Your task to perform on an android device: Search for usb-b on amazon, select the first entry, and add it to the cart. Image 0: 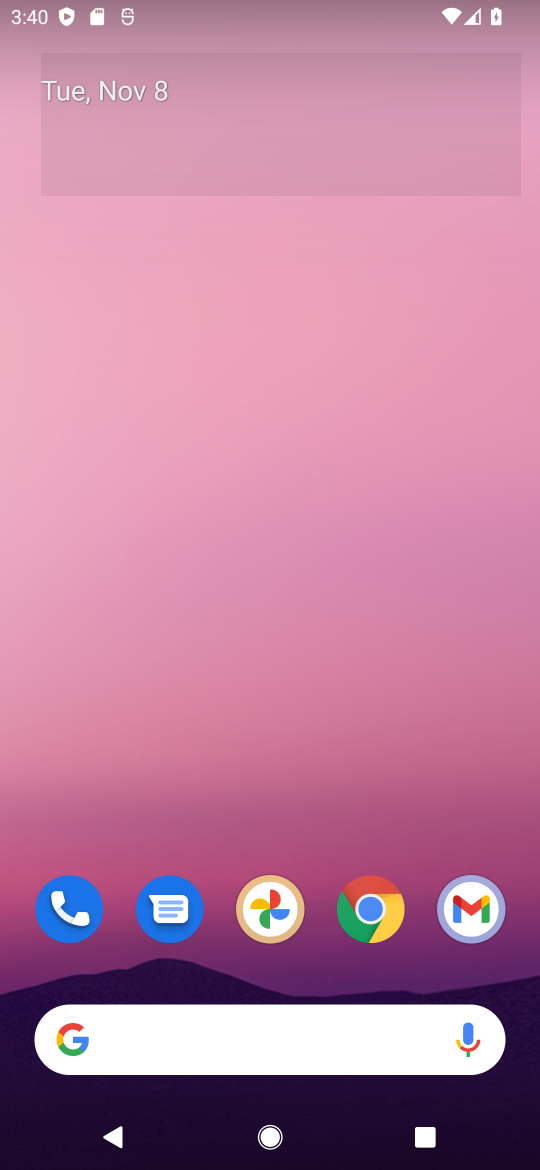
Step 0: press home button
Your task to perform on an android device: Search for usb-b on amazon, select the first entry, and add it to the cart. Image 1: 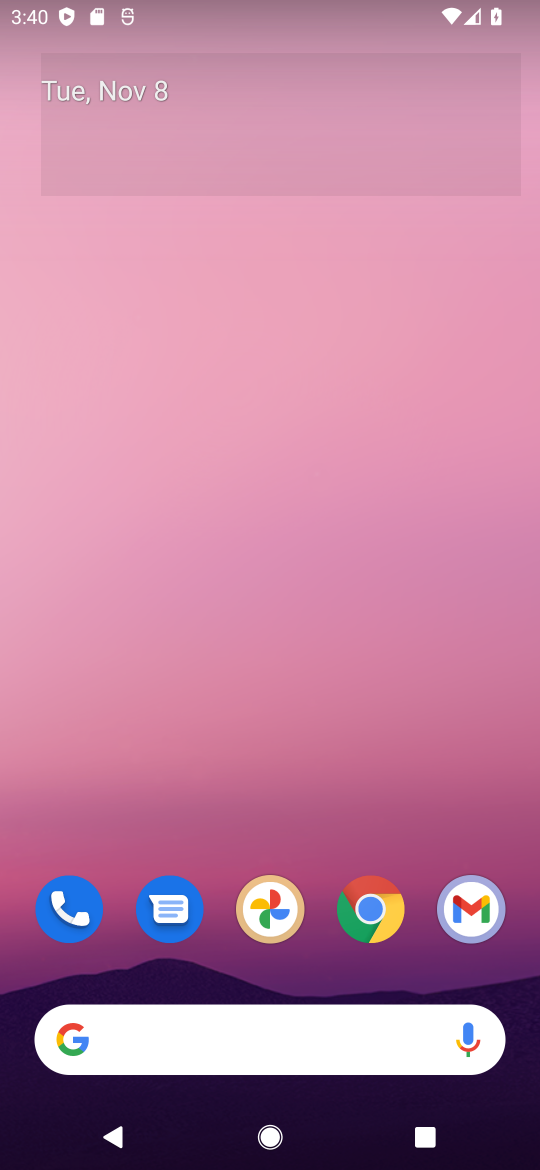
Step 1: click (375, 907)
Your task to perform on an android device: Search for usb-b on amazon, select the first entry, and add it to the cart. Image 2: 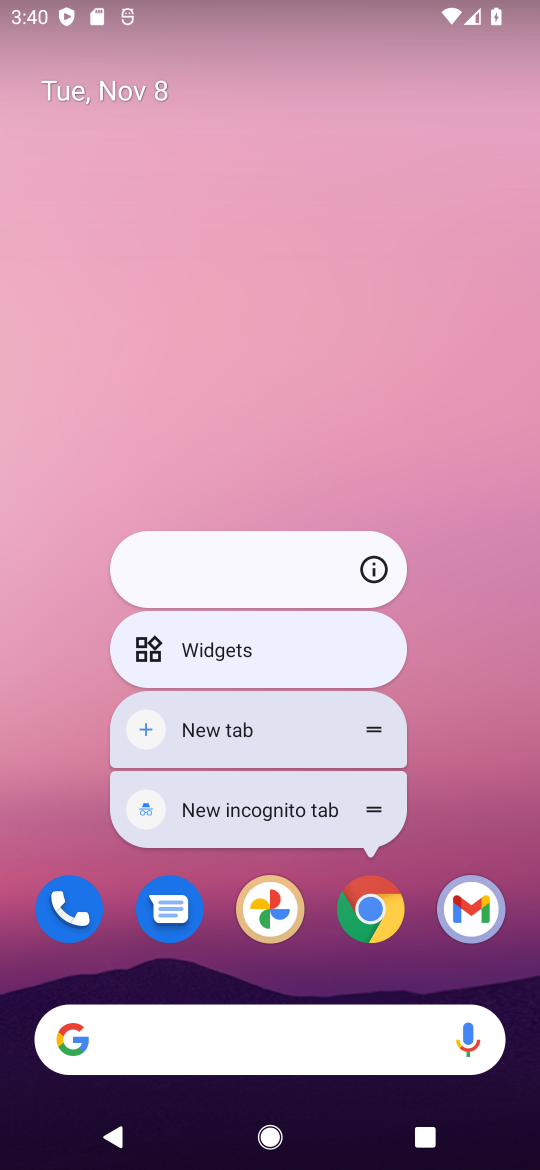
Step 2: click (354, 898)
Your task to perform on an android device: Search for usb-b on amazon, select the first entry, and add it to the cart. Image 3: 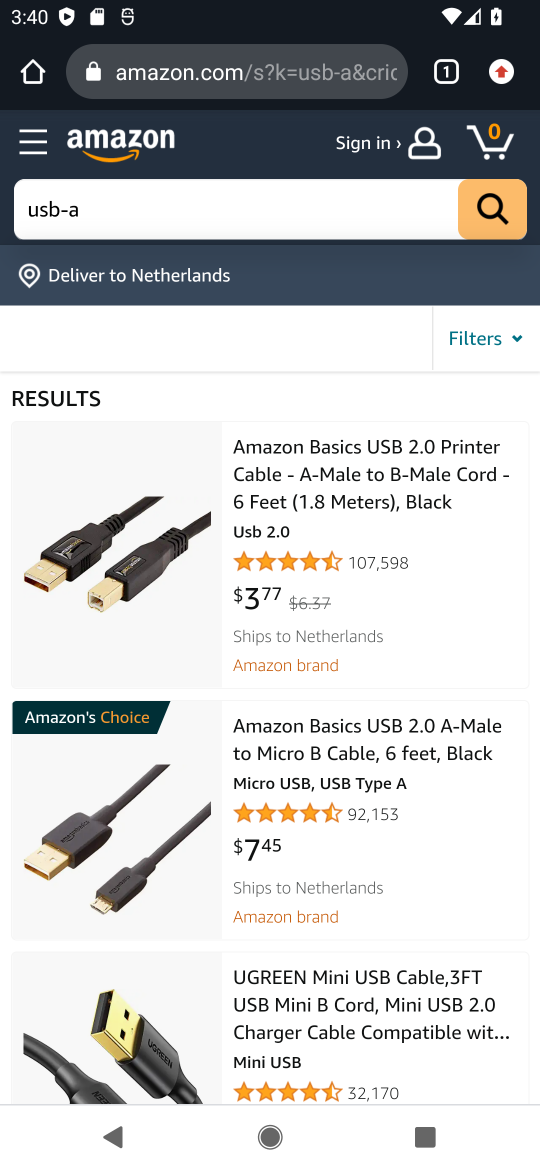
Step 3: click (182, 226)
Your task to perform on an android device: Search for usb-b on amazon, select the first entry, and add it to the cart. Image 4: 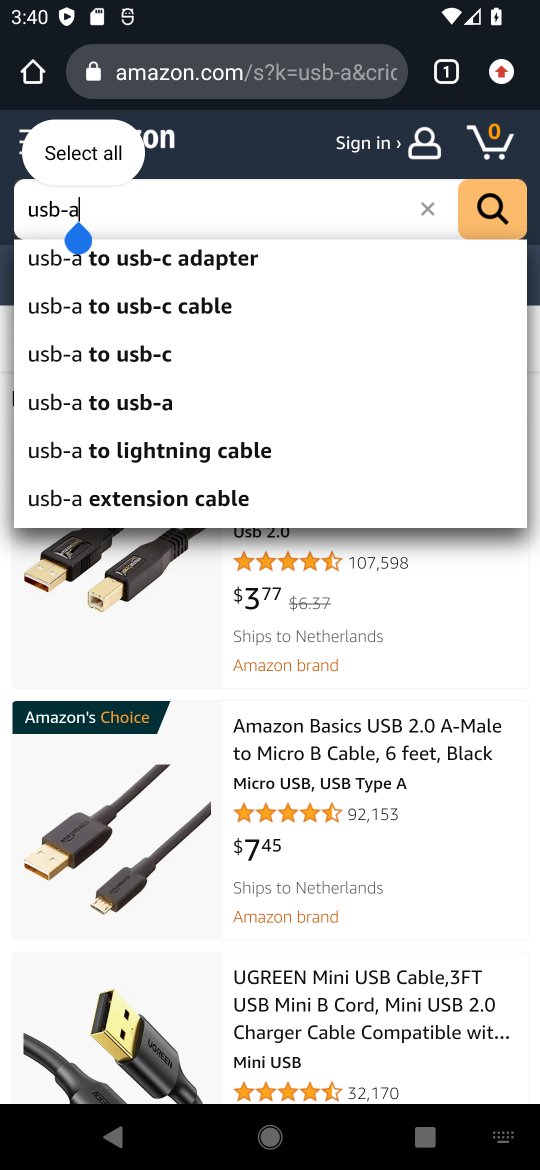
Step 4: click (430, 211)
Your task to perform on an android device: Search for usb-b on amazon, select the first entry, and add it to the cart. Image 5: 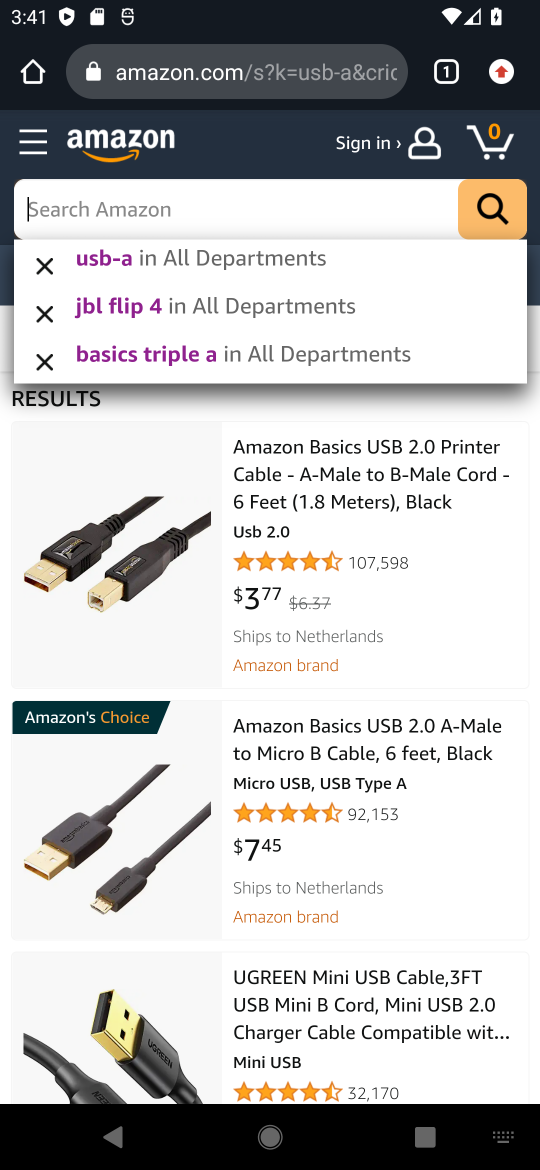
Step 5: type " usb-b"
Your task to perform on an android device: Search for usb-b on amazon, select the first entry, and add it to the cart. Image 6: 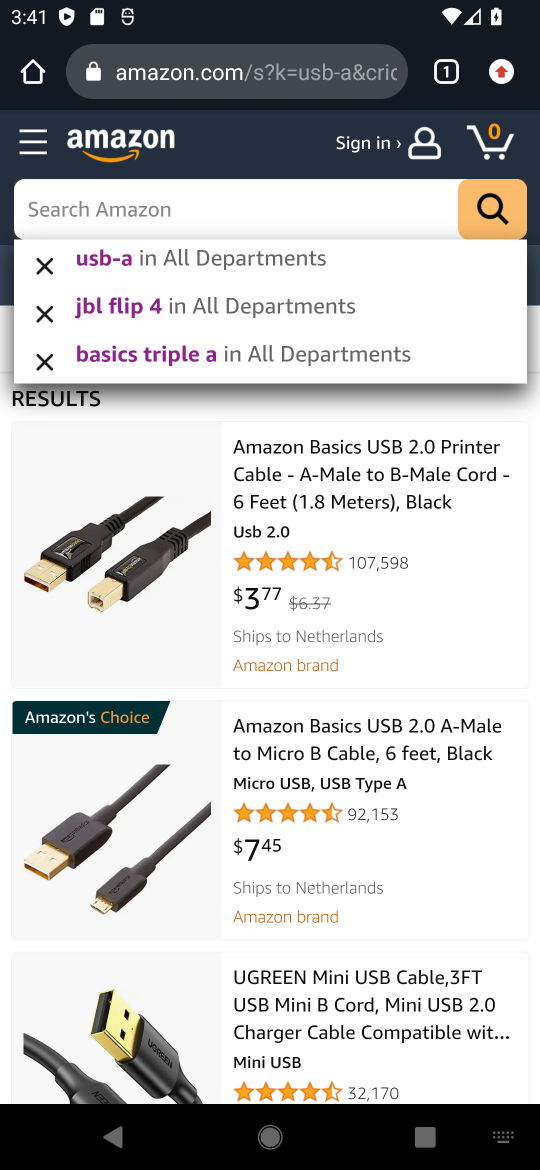
Step 6: press enter
Your task to perform on an android device: Search for usb-b on amazon, select the first entry, and add it to the cart. Image 7: 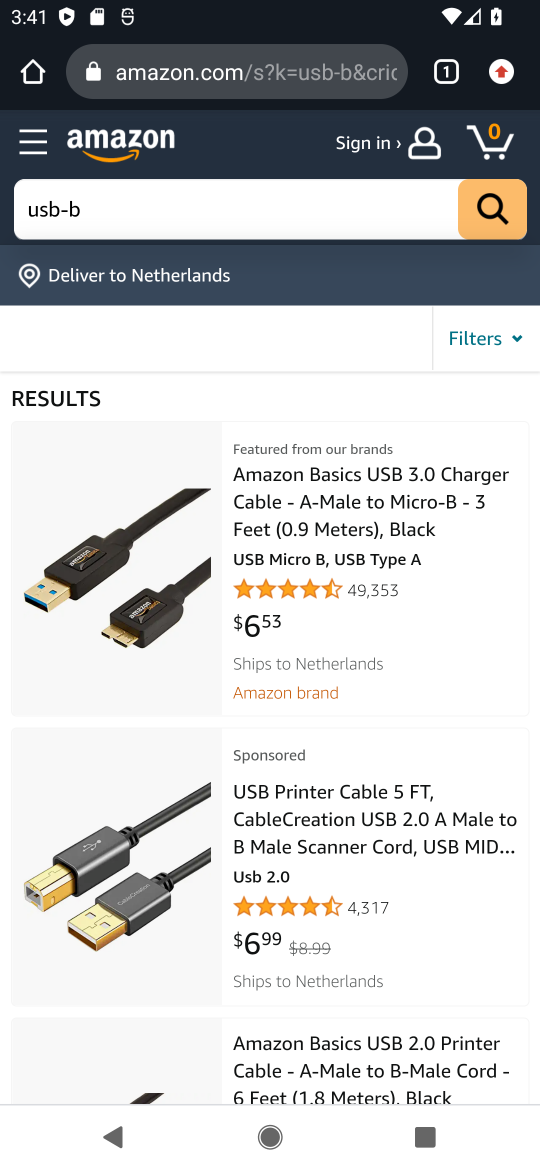
Step 7: click (357, 520)
Your task to perform on an android device: Search for usb-b on amazon, select the first entry, and add it to the cart. Image 8: 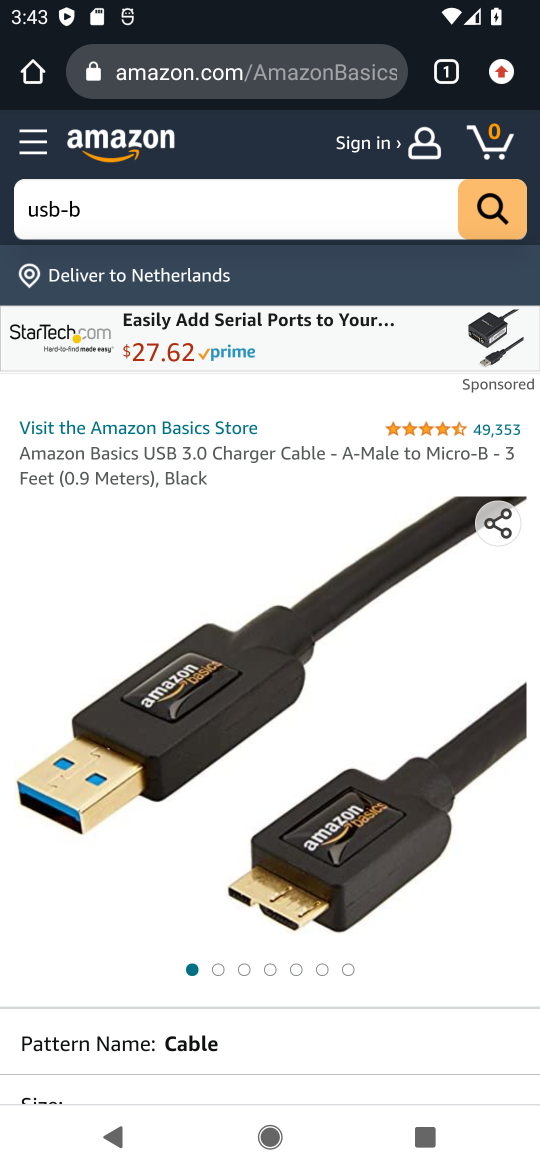
Step 8: task complete